Your task to perform on an android device: turn off notifications settings in the gmail app Image 0: 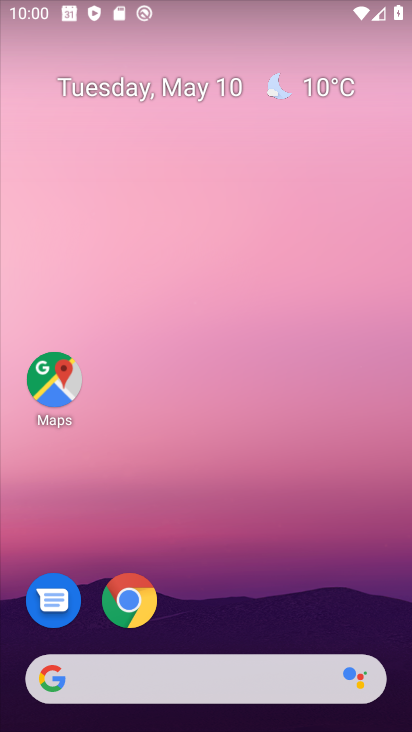
Step 0: drag from (320, 577) to (281, 79)
Your task to perform on an android device: turn off notifications settings in the gmail app Image 1: 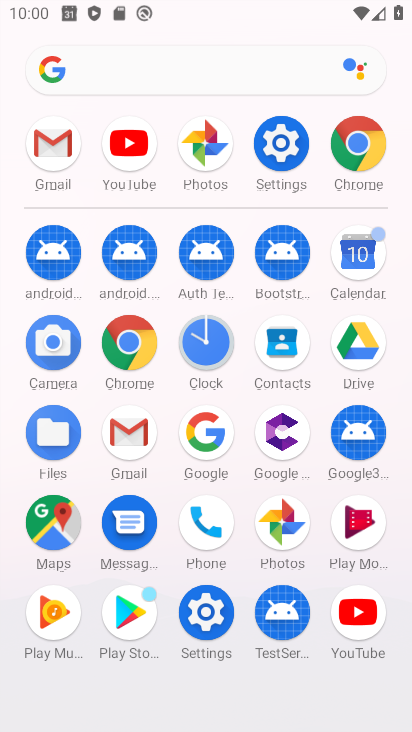
Step 1: click (134, 438)
Your task to perform on an android device: turn off notifications settings in the gmail app Image 2: 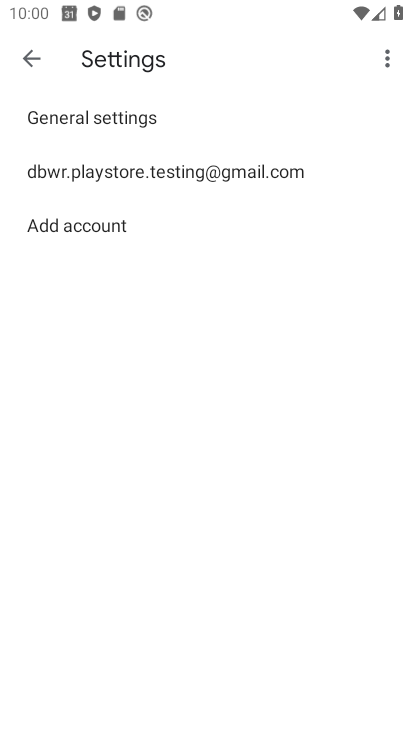
Step 2: click (135, 166)
Your task to perform on an android device: turn off notifications settings in the gmail app Image 3: 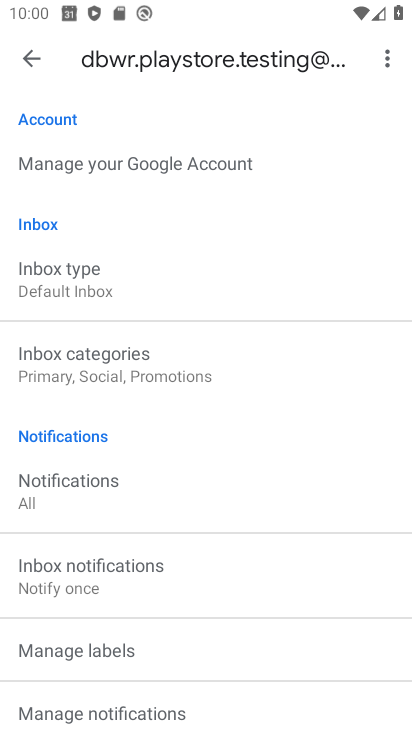
Step 3: click (133, 511)
Your task to perform on an android device: turn off notifications settings in the gmail app Image 4: 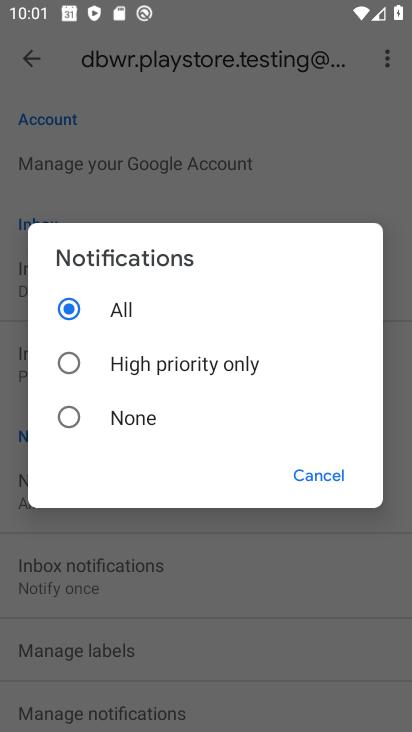
Step 4: click (118, 419)
Your task to perform on an android device: turn off notifications settings in the gmail app Image 5: 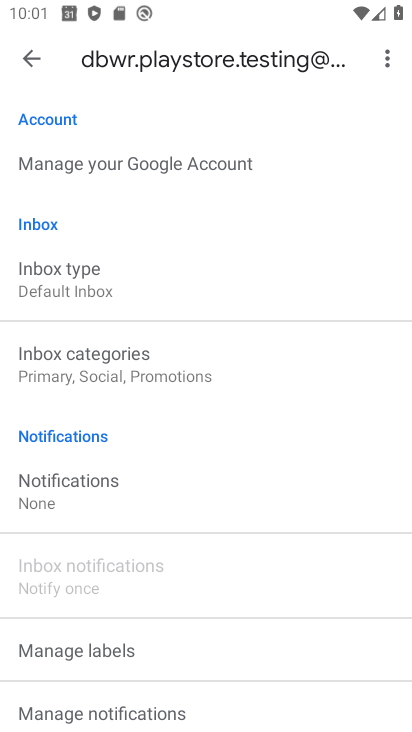
Step 5: task complete